Your task to perform on an android device: Search for Mexican restaurants on Maps Image 0: 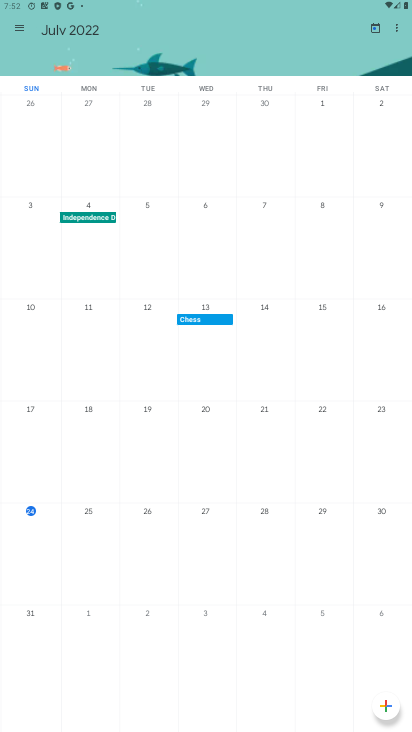
Step 0: press home button
Your task to perform on an android device: Search for Mexican restaurants on Maps Image 1: 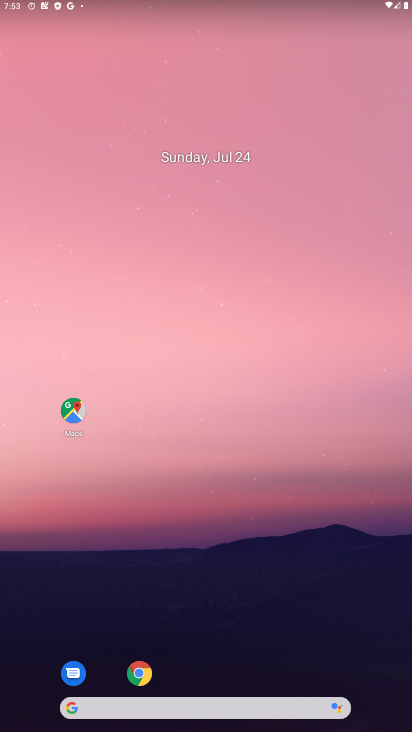
Step 1: click (82, 399)
Your task to perform on an android device: Search for Mexican restaurants on Maps Image 2: 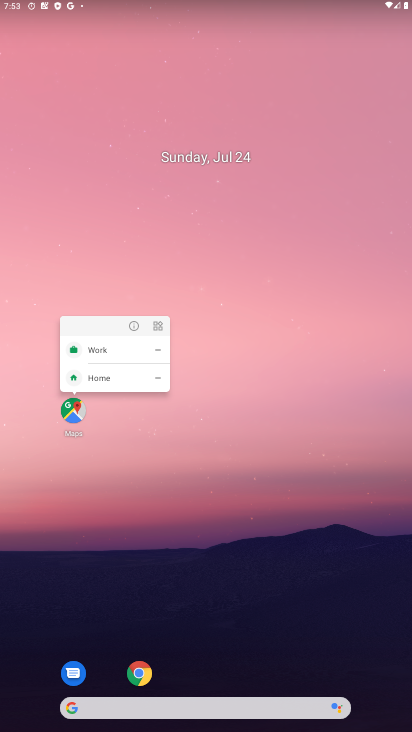
Step 2: click (70, 418)
Your task to perform on an android device: Search for Mexican restaurants on Maps Image 3: 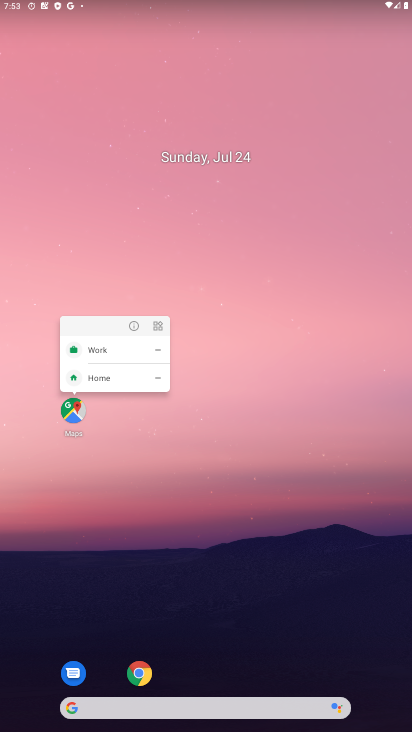
Step 3: click (70, 401)
Your task to perform on an android device: Search for Mexican restaurants on Maps Image 4: 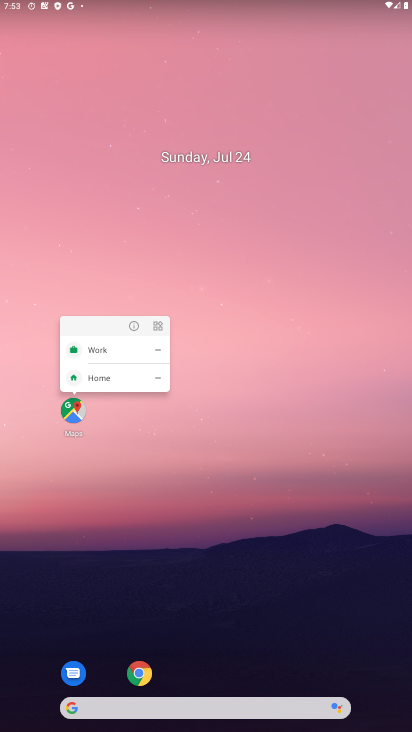
Step 4: click (66, 411)
Your task to perform on an android device: Search for Mexican restaurants on Maps Image 5: 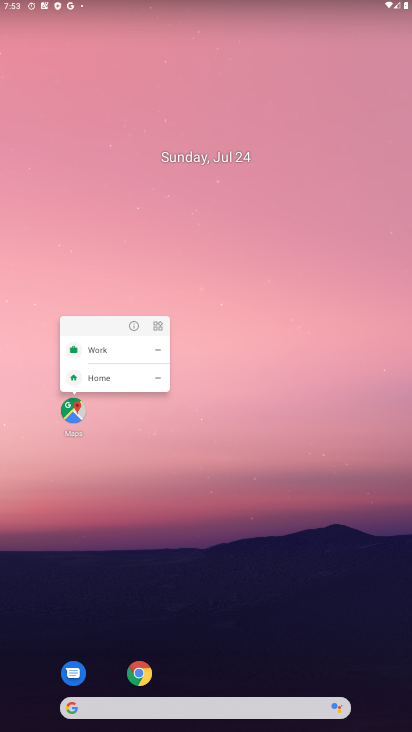
Step 5: click (81, 371)
Your task to perform on an android device: Search for Mexican restaurants on Maps Image 6: 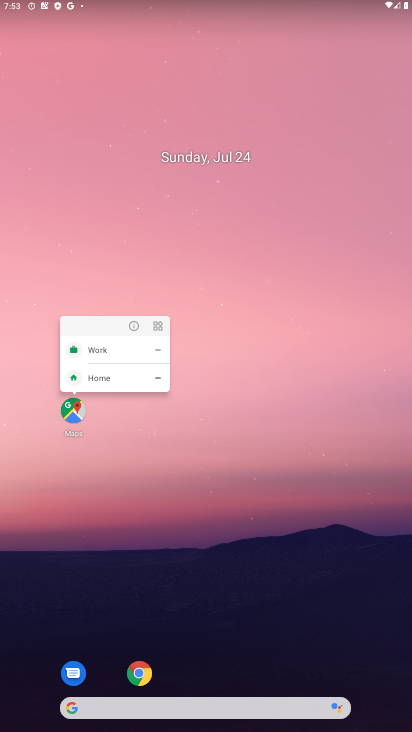
Step 6: click (62, 420)
Your task to perform on an android device: Search for Mexican restaurants on Maps Image 7: 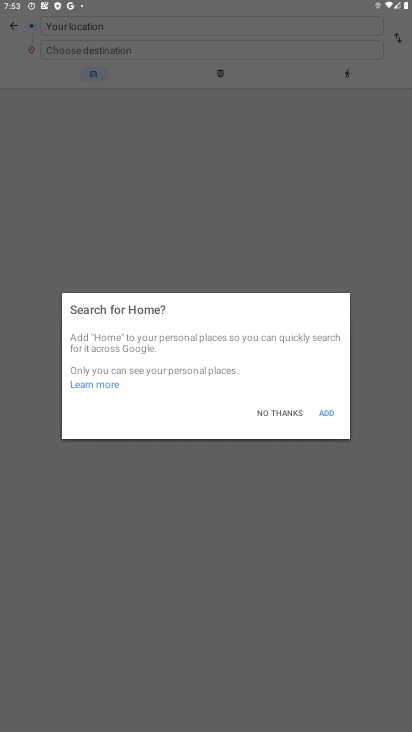
Step 7: click (285, 422)
Your task to perform on an android device: Search for Mexican restaurants on Maps Image 8: 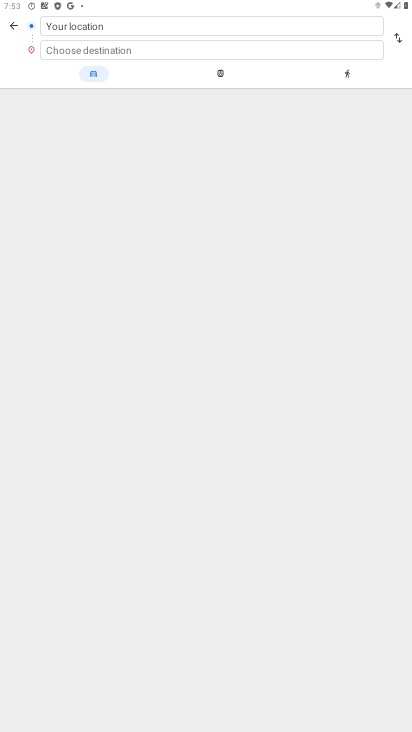
Step 8: task complete